Your task to perform on an android device: Open the stopwatch Image 0: 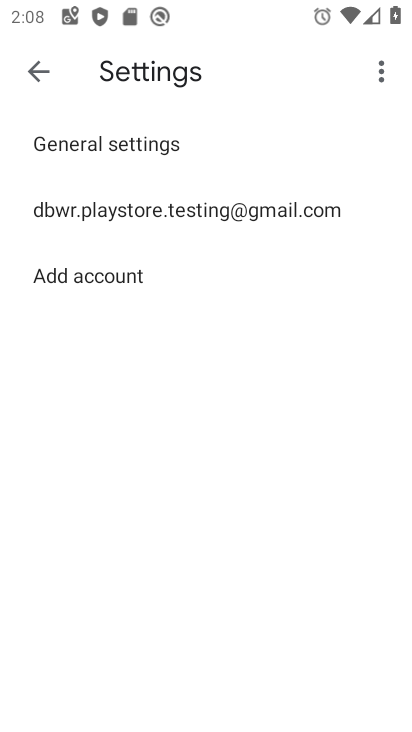
Step 0: press home button
Your task to perform on an android device: Open the stopwatch Image 1: 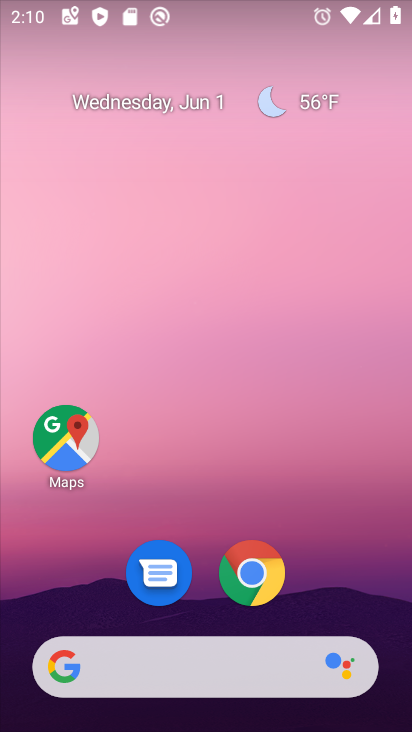
Step 1: drag from (292, 536) to (203, 33)
Your task to perform on an android device: Open the stopwatch Image 2: 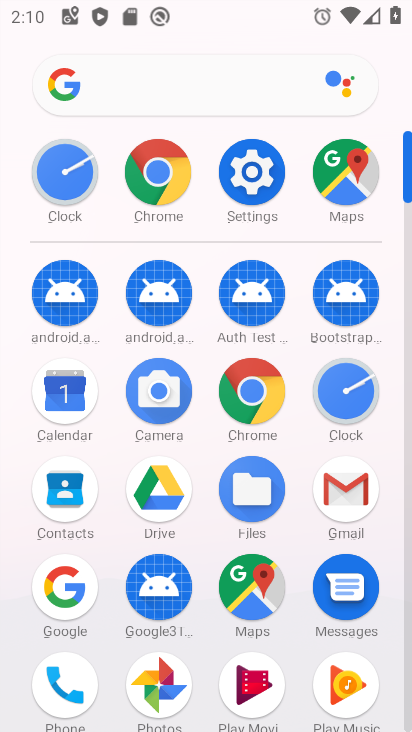
Step 2: click (345, 384)
Your task to perform on an android device: Open the stopwatch Image 3: 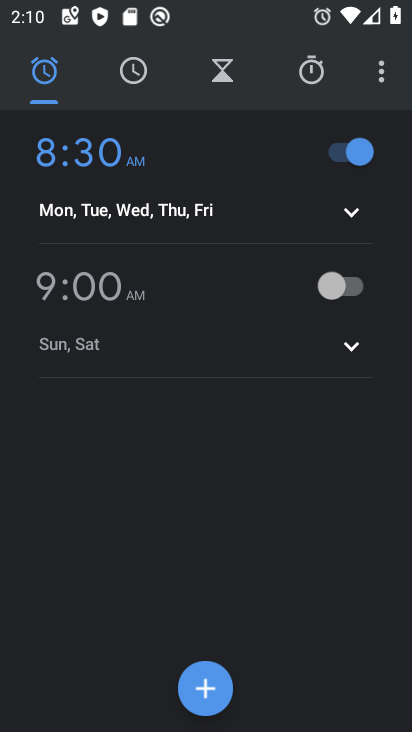
Step 3: click (300, 81)
Your task to perform on an android device: Open the stopwatch Image 4: 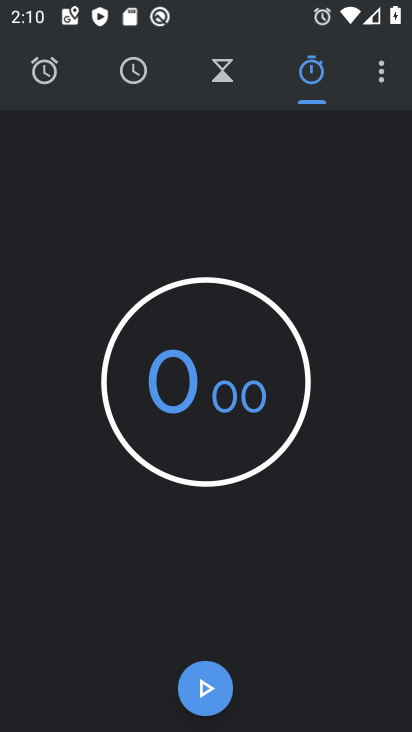
Step 4: click (212, 685)
Your task to perform on an android device: Open the stopwatch Image 5: 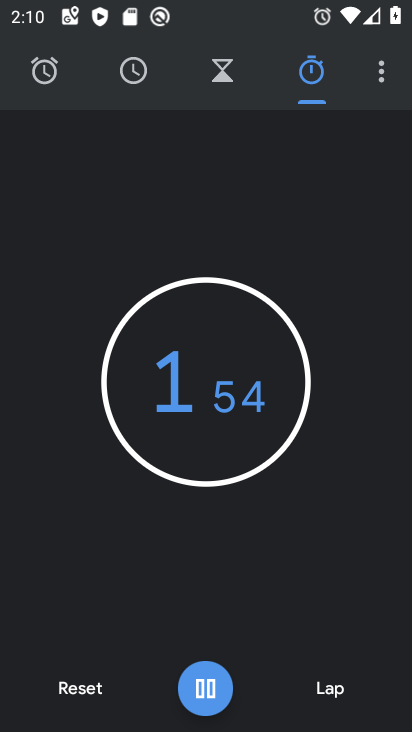
Step 5: task complete